Your task to perform on an android device: Open Reddit.com Image 0: 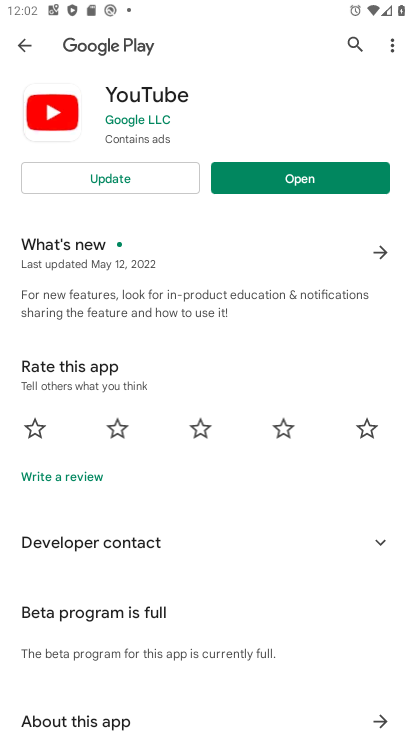
Step 0: press home button
Your task to perform on an android device: Open Reddit.com Image 1: 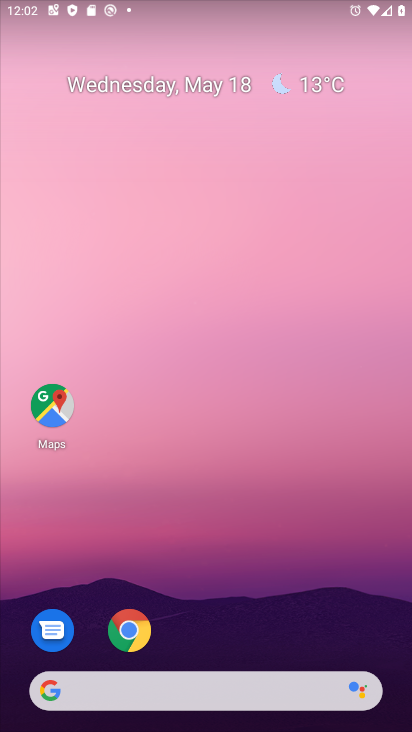
Step 1: click (122, 628)
Your task to perform on an android device: Open Reddit.com Image 2: 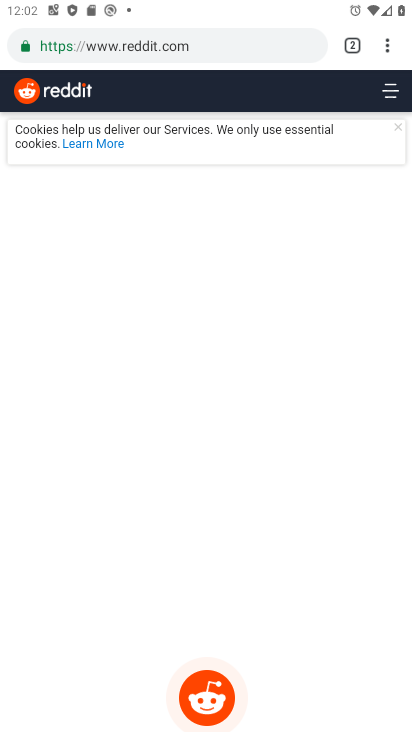
Step 2: task complete